Your task to perform on an android device: change timer sound Image 0: 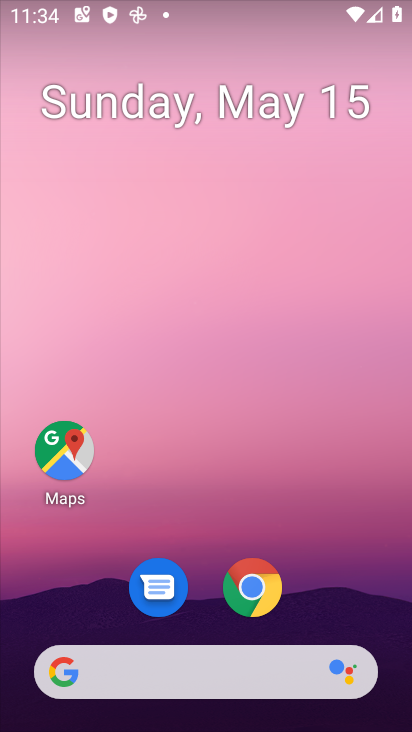
Step 0: drag from (363, 629) to (274, 104)
Your task to perform on an android device: change timer sound Image 1: 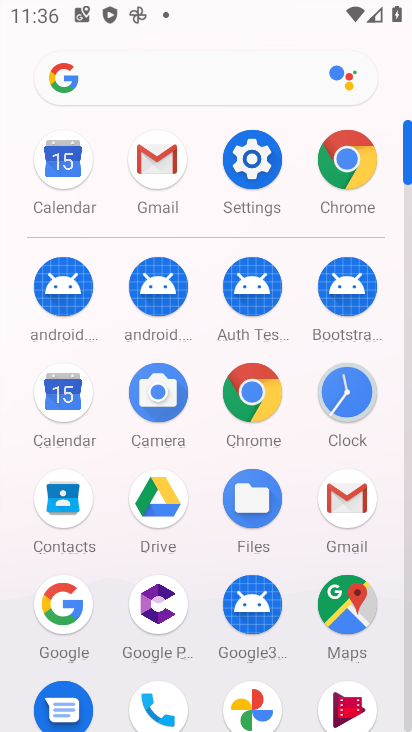
Step 1: click (342, 410)
Your task to perform on an android device: change timer sound Image 2: 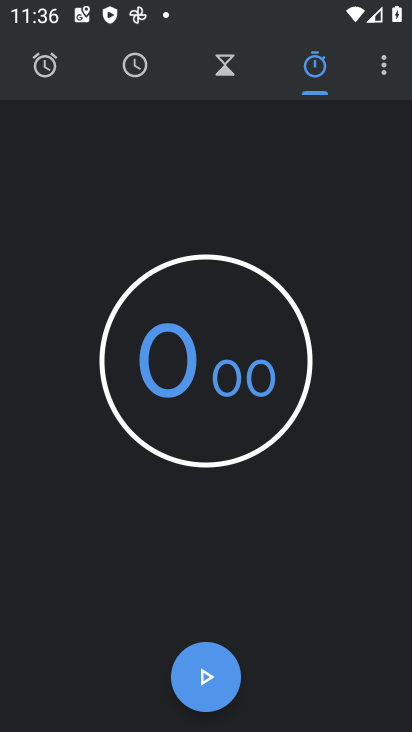
Step 2: click (392, 65)
Your task to perform on an android device: change timer sound Image 3: 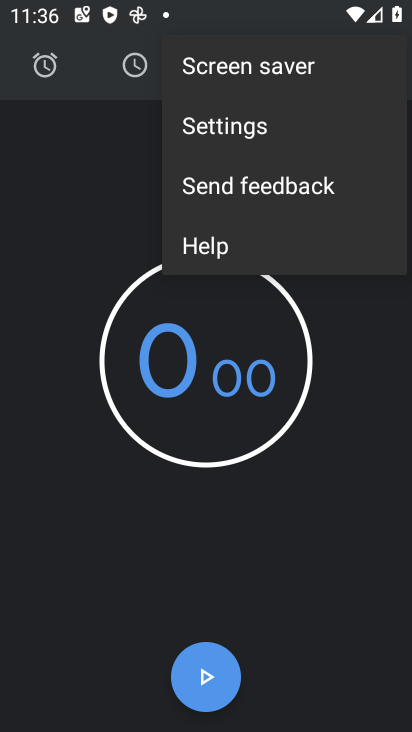
Step 3: click (272, 112)
Your task to perform on an android device: change timer sound Image 4: 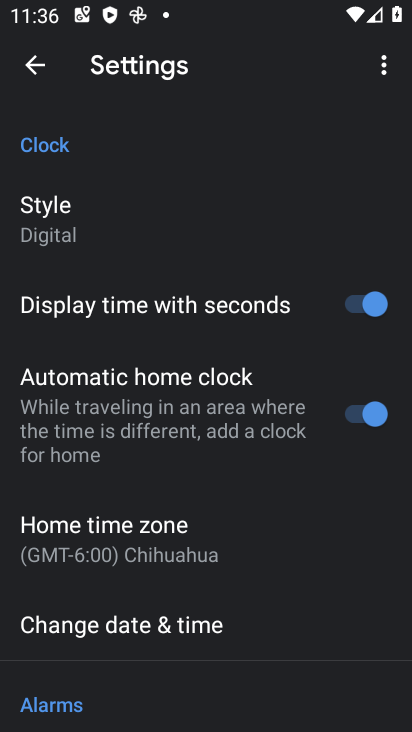
Step 4: drag from (250, 649) to (247, 85)
Your task to perform on an android device: change timer sound Image 5: 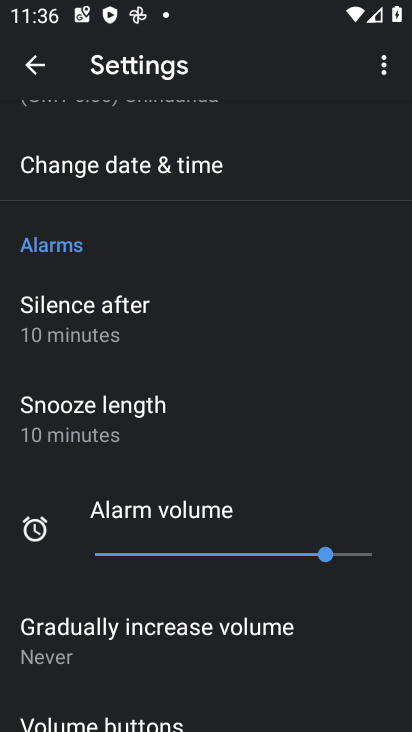
Step 5: drag from (132, 646) to (139, 206)
Your task to perform on an android device: change timer sound Image 6: 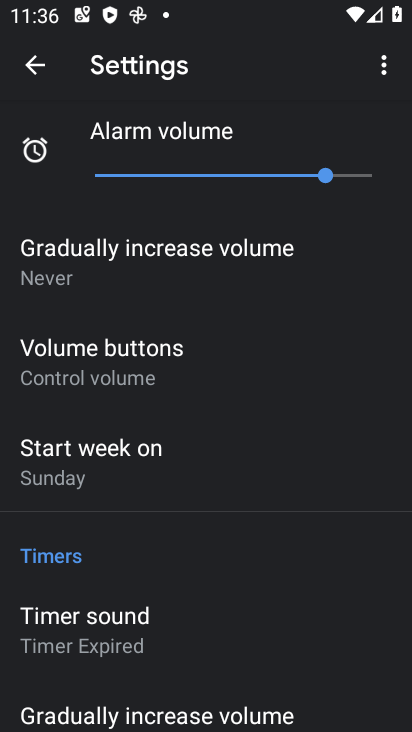
Step 6: click (167, 620)
Your task to perform on an android device: change timer sound Image 7: 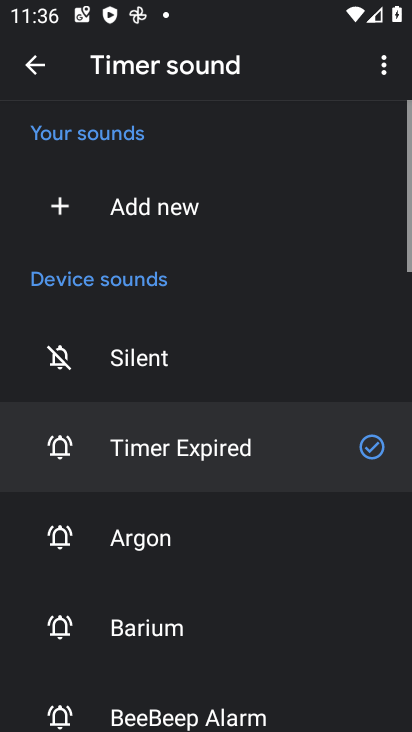
Step 7: click (165, 550)
Your task to perform on an android device: change timer sound Image 8: 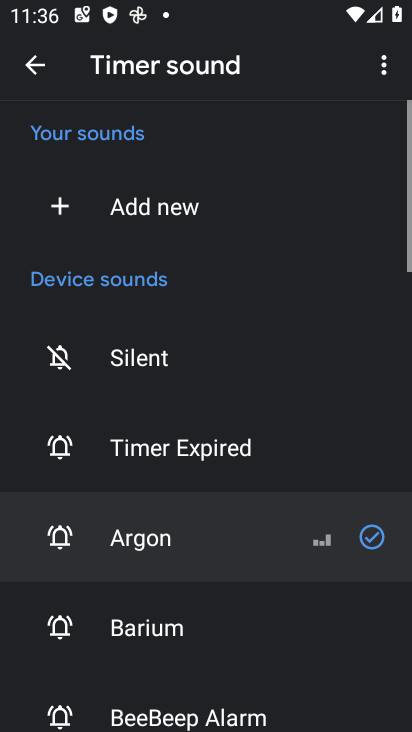
Step 8: task complete